Your task to perform on an android device: Go to Wikipedia Image 0: 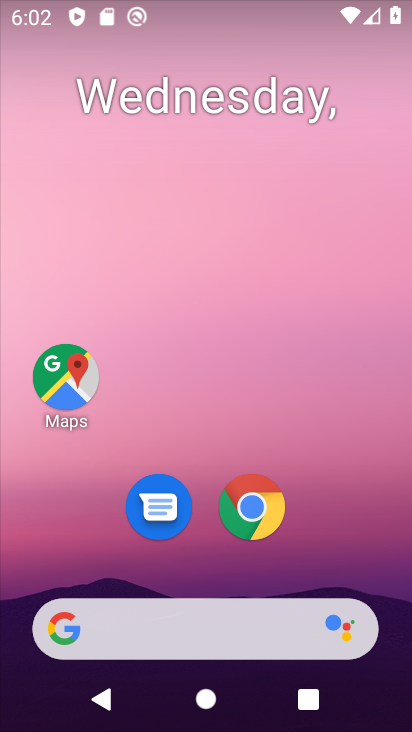
Step 0: drag from (176, 616) to (175, 65)
Your task to perform on an android device: Go to Wikipedia Image 1: 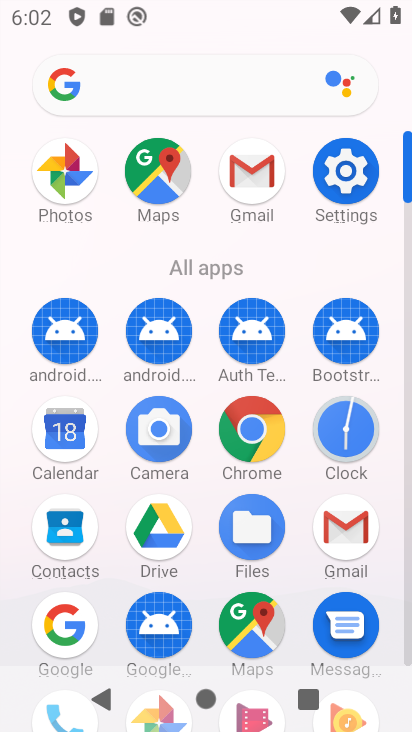
Step 1: click (267, 434)
Your task to perform on an android device: Go to Wikipedia Image 2: 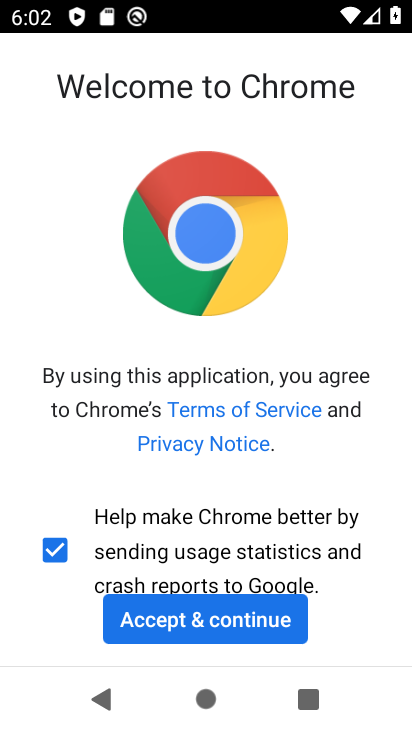
Step 2: click (246, 621)
Your task to perform on an android device: Go to Wikipedia Image 3: 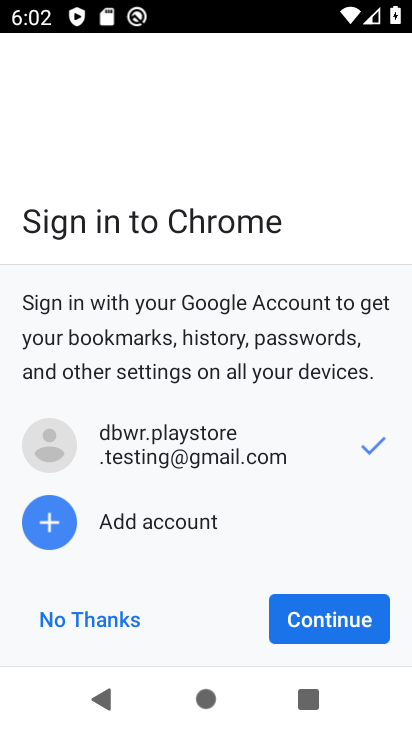
Step 3: click (90, 624)
Your task to perform on an android device: Go to Wikipedia Image 4: 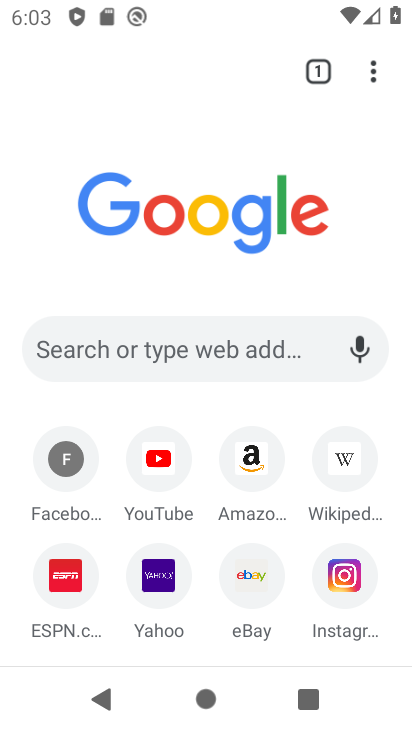
Step 4: click (349, 480)
Your task to perform on an android device: Go to Wikipedia Image 5: 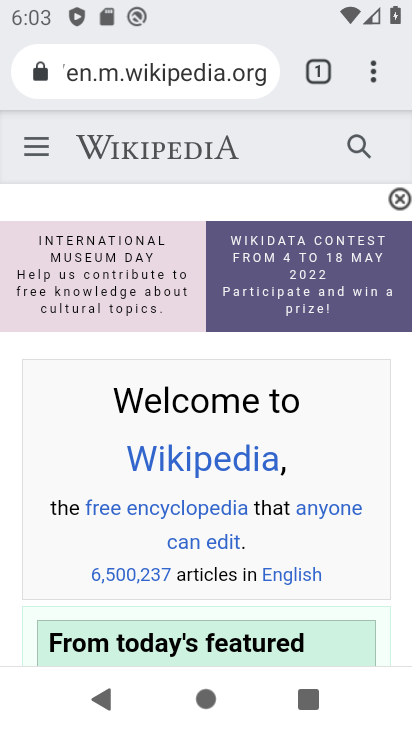
Step 5: task complete